Your task to perform on an android device: turn off translation in the chrome app Image 0: 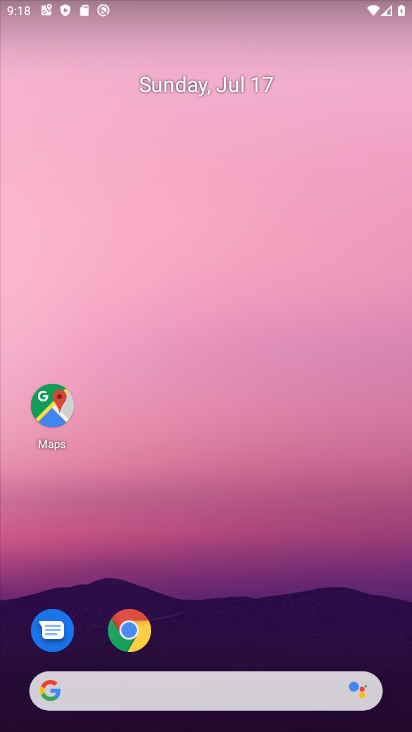
Step 0: drag from (163, 651) to (305, 1)
Your task to perform on an android device: turn off translation in the chrome app Image 1: 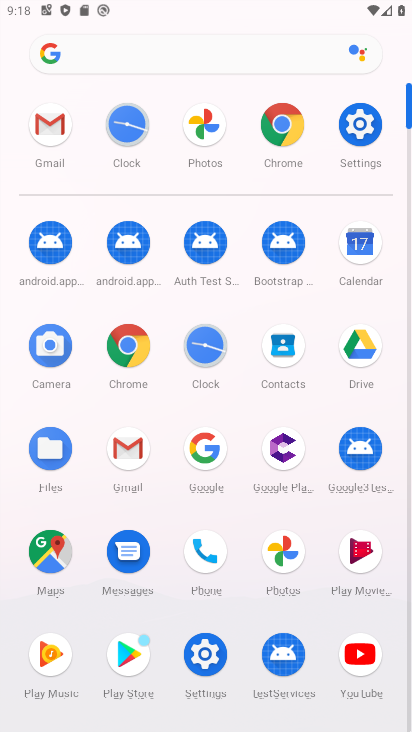
Step 1: click (133, 344)
Your task to perform on an android device: turn off translation in the chrome app Image 2: 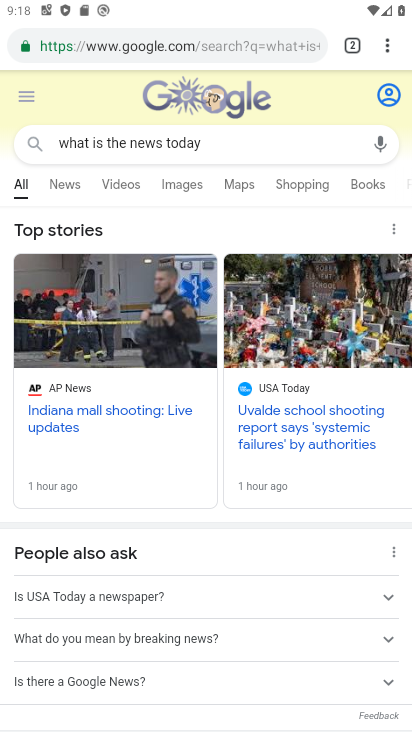
Step 2: click (384, 42)
Your task to perform on an android device: turn off translation in the chrome app Image 3: 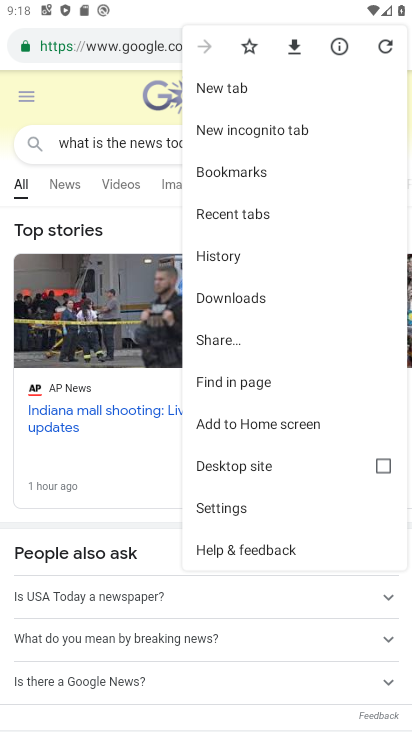
Step 3: click (231, 511)
Your task to perform on an android device: turn off translation in the chrome app Image 4: 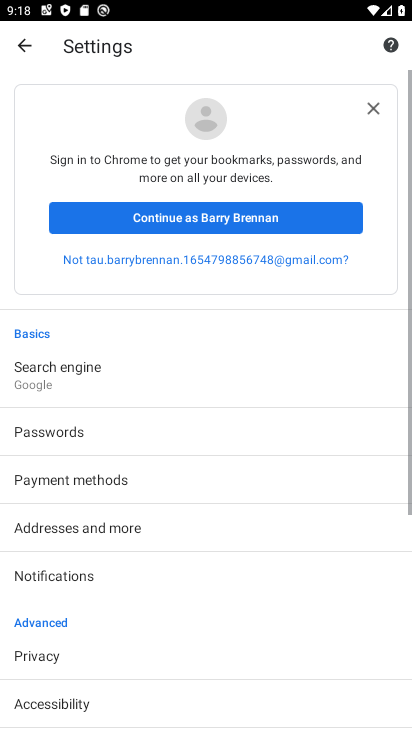
Step 4: drag from (80, 678) to (141, 205)
Your task to perform on an android device: turn off translation in the chrome app Image 5: 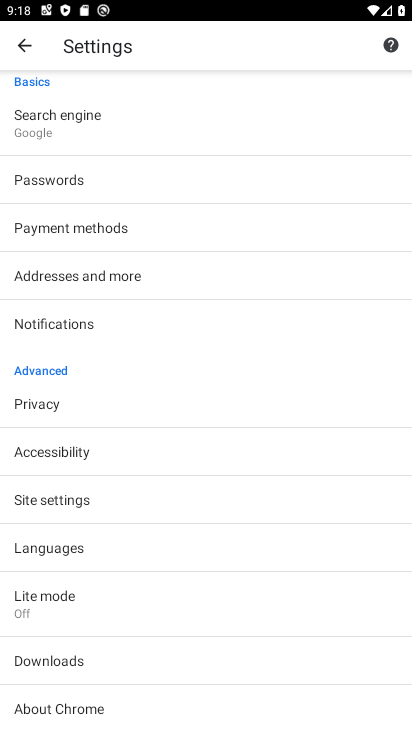
Step 5: click (77, 503)
Your task to perform on an android device: turn off translation in the chrome app Image 6: 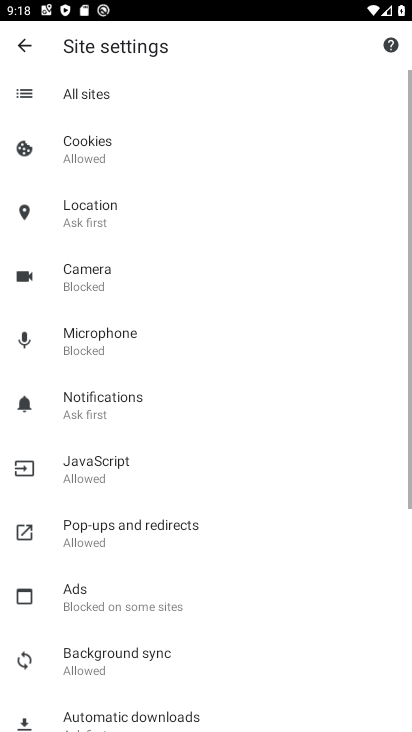
Step 6: press back button
Your task to perform on an android device: turn off translation in the chrome app Image 7: 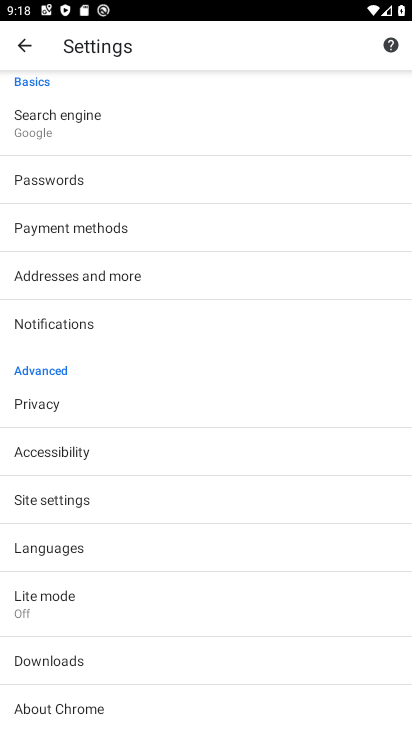
Step 7: click (64, 541)
Your task to perform on an android device: turn off translation in the chrome app Image 8: 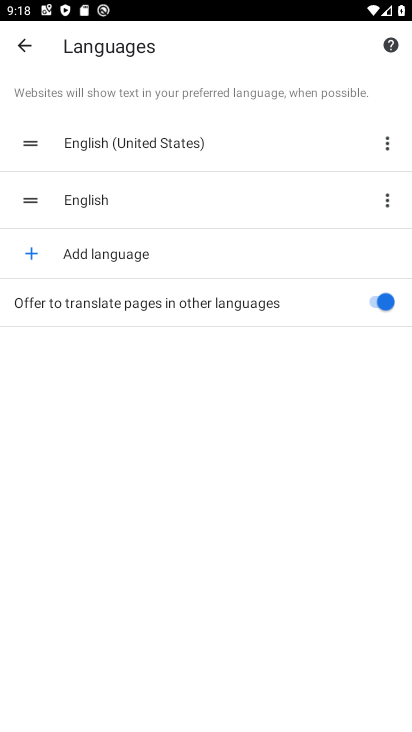
Step 8: click (370, 291)
Your task to perform on an android device: turn off translation in the chrome app Image 9: 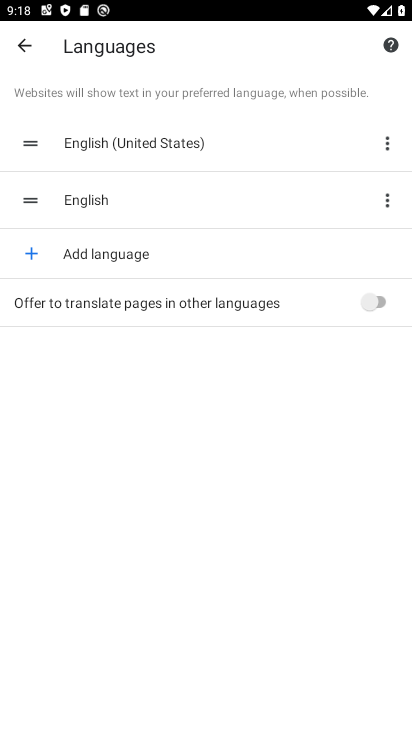
Step 9: task complete